Your task to perform on an android device: Open the phone app and click the voicemail tab. Image 0: 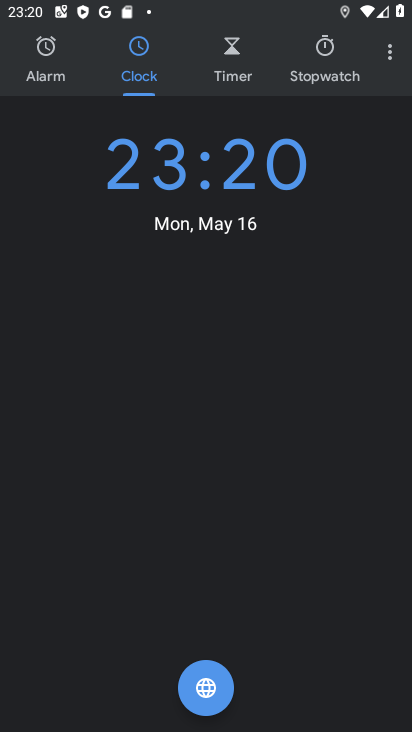
Step 0: press home button
Your task to perform on an android device: Open the phone app and click the voicemail tab. Image 1: 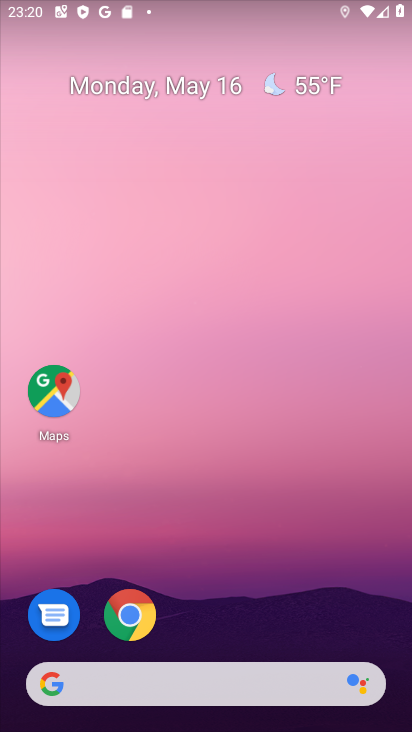
Step 1: drag from (176, 655) to (106, 113)
Your task to perform on an android device: Open the phone app and click the voicemail tab. Image 2: 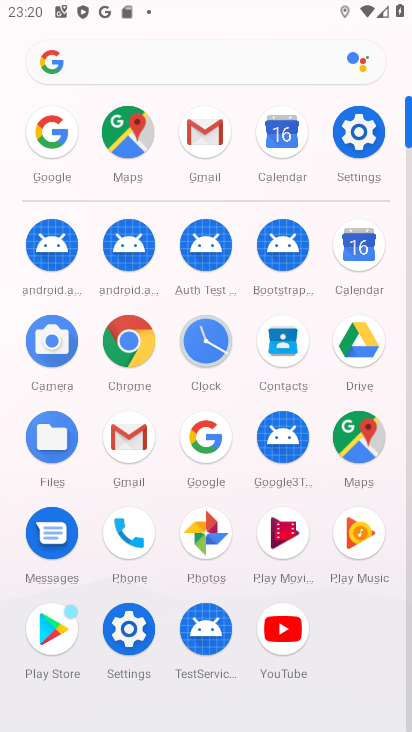
Step 2: click (123, 541)
Your task to perform on an android device: Open the phone app and click the voicemail tab. Image 3: 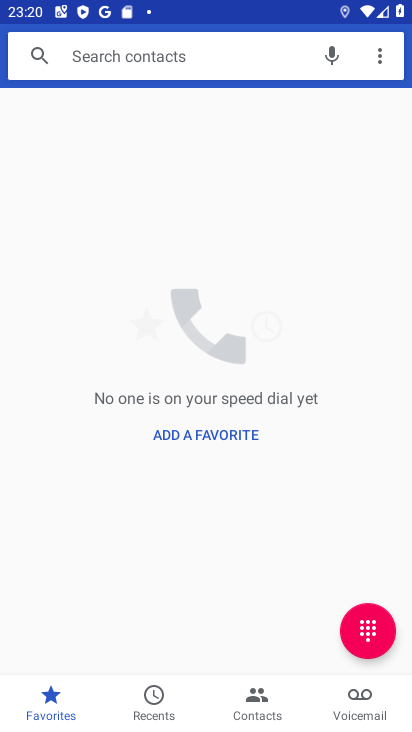
Step 3: click (361, 693)
Your task to perform on an android device: Open the phone app and click the voicemail tab. Image 4: 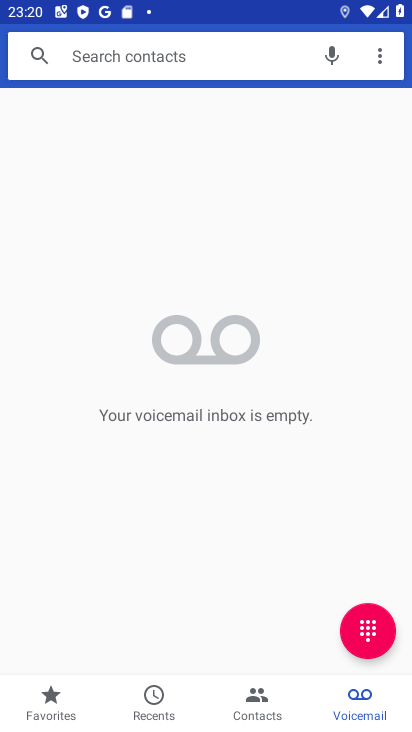
Step 4: task complete